Your task to perform on an android device: set the stopwatch Image 0: 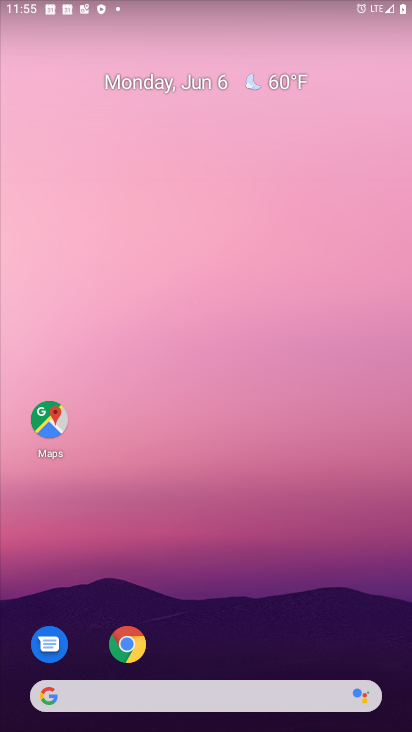
Step 0: drag from (142, 730) to (119, 14)
Your task to perform on an android device: set the stopwatch Image 1: 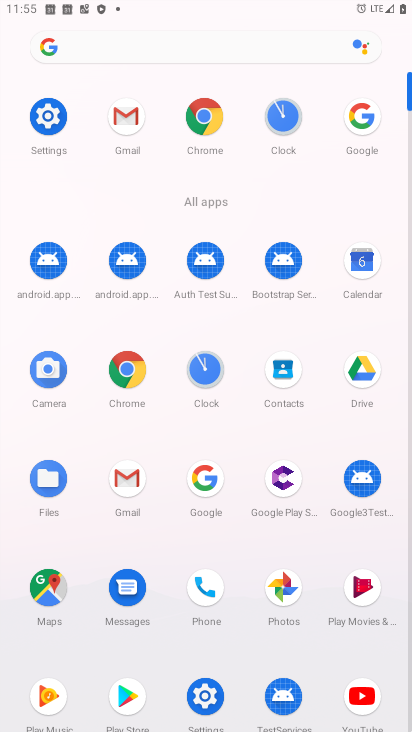
Step 1: click (208, 369)
Your task to perform on an android device: set the stopwatch Image 2: 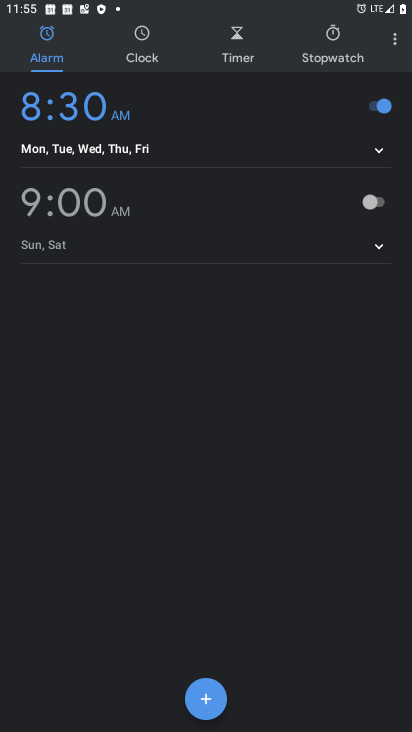
Step 2: click (330, 53)
Your task to perform on an android device: set the stopwatch Image 3: 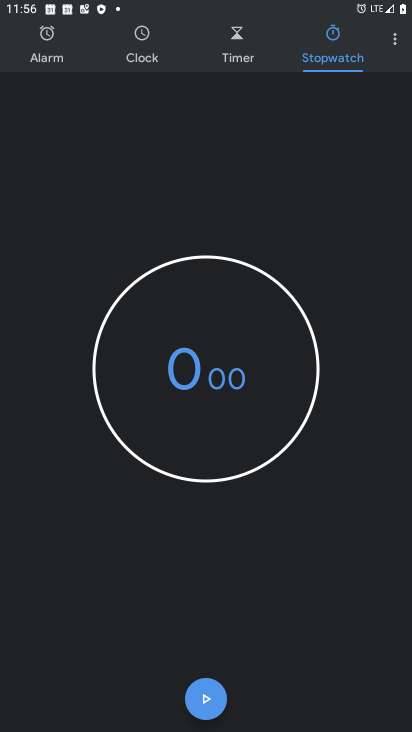
Step 3: click (194, 707)
Your task to perform on an android device: set the stopwatch Image 4: 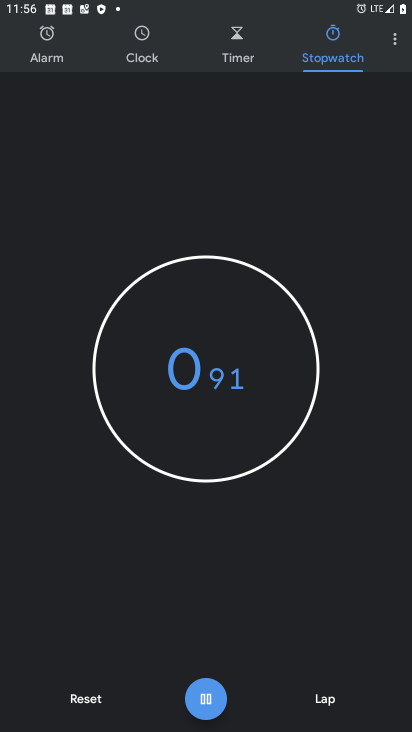
Step 4: click (194, 707)
Your task to perform on an android device: set the stopwatch Image 5: 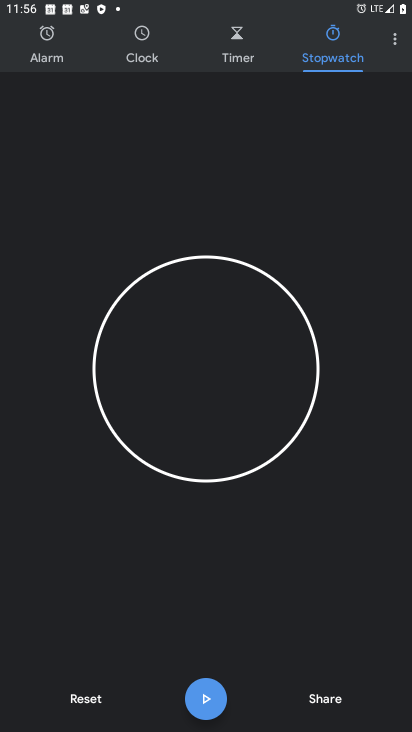
Step 5: task complete